Your task to perform on an android device: empty trash in google photos Image 0: 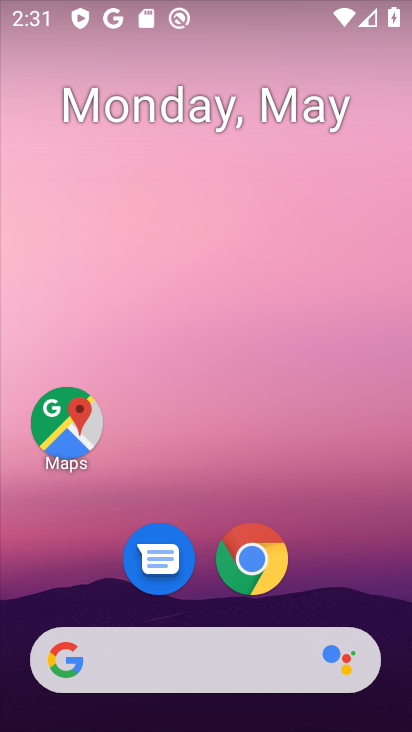
Step 0: drag from (332, 586) to (335, 91)
Your task to perform on an android device: empty trash in google photos Image 1: 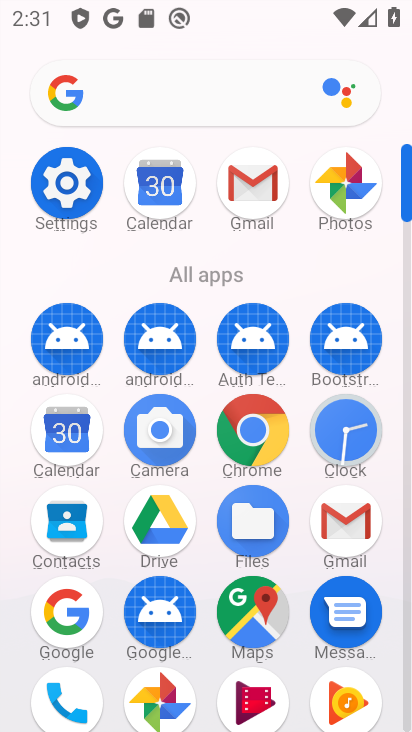
Step 1: click (350, 191)
Your task to perform on an android device: empty trash in google photos Image 2: 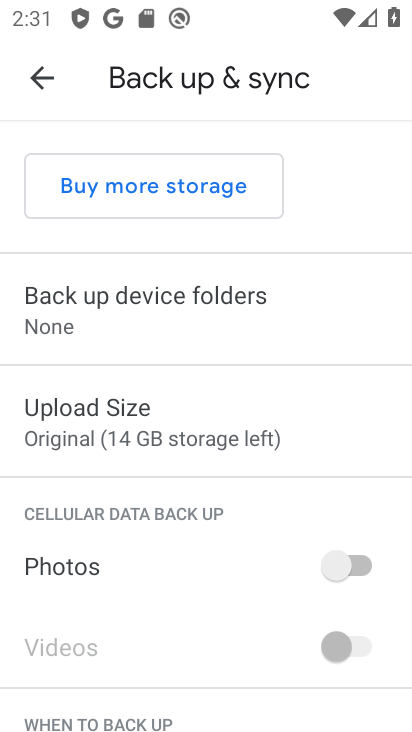
Step 2: click (48, 90)
Your task to perform on an android device: empty trash in google photos Image 3: 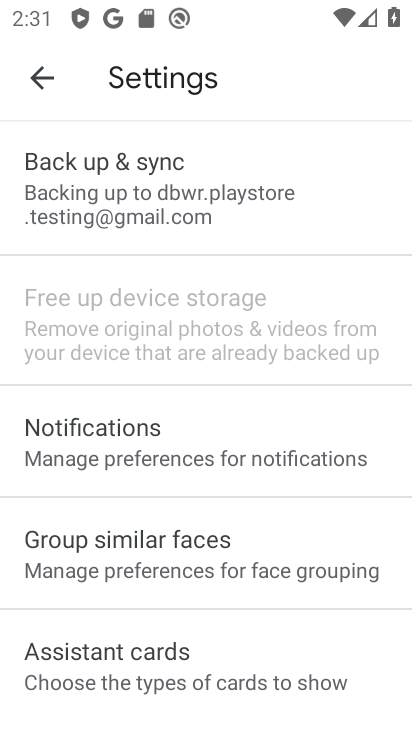
Step 3: click (54, 81)
Your task to perform on an android device: empty trash in google photos Image 4: 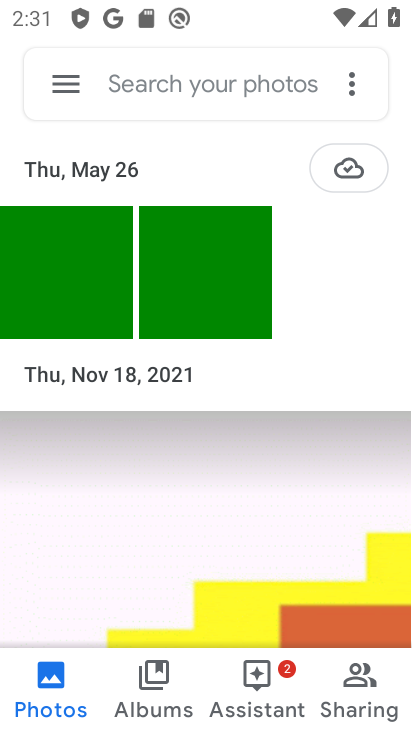
Step 4: click (61, 91)
Your task to perform on an android device: empty trash in google photos Image 5: 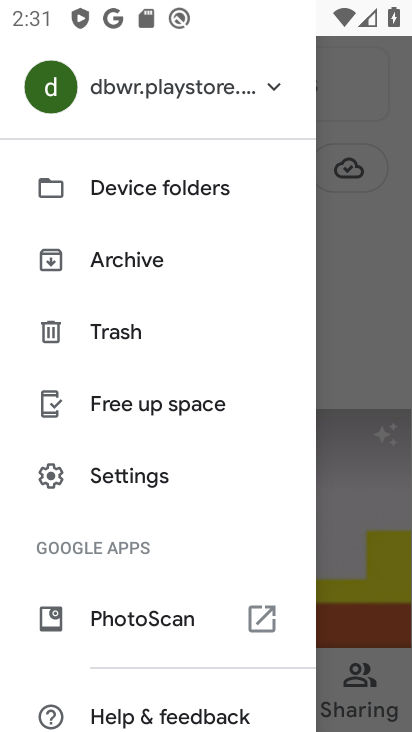
Step 5: click (122, 325)
Your task to perform on an android device: empty trash in google photos Image 6: 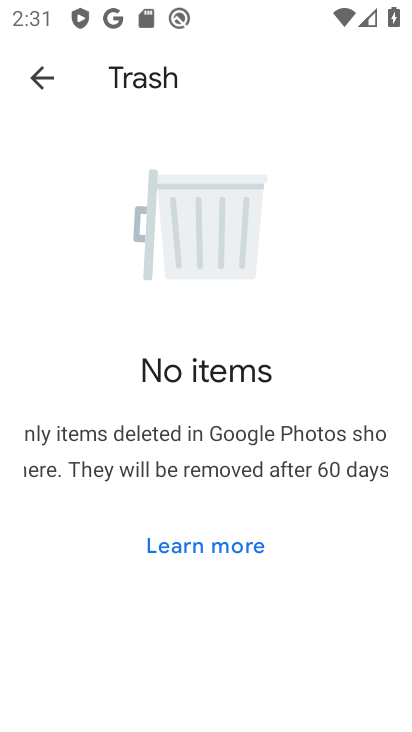
Step 6: task complete